Your task to perform on an android device: Show me productivity apps on the Play Store Image 0: 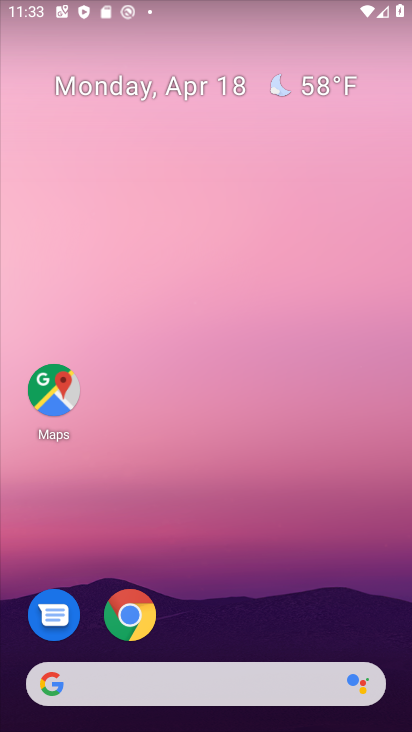
Step 0: drag from (265, 543) to (263, 71)
Your task to perform on an android device: Show me productivity apps on the Play Store Image 1: 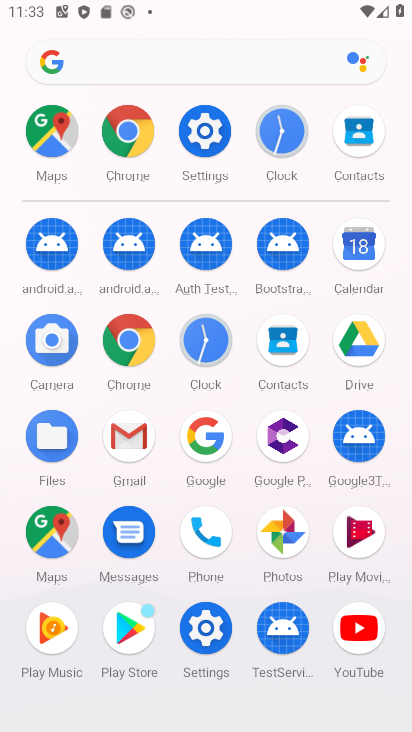
Step 1: click (124, 640)
Your task to perform on an android device: Show me productivity apps on the Play Store Image 2: 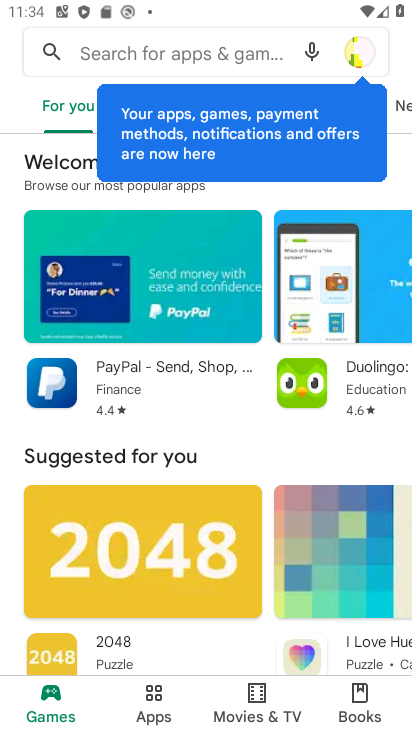
Step 2: click (152, 707)
Your task to perform on an android device: Show me productivity apps on the Play Store Image 3: 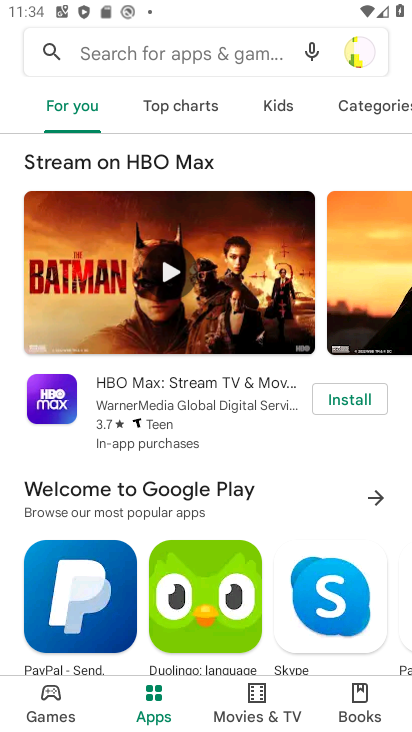
Step 3: click (363, 47)
Your task to perform on an android device: Show me productivity apps on the Play Store Image 4: 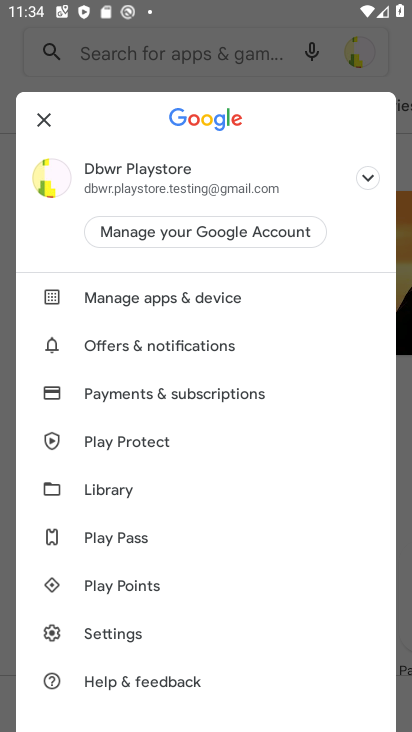
Step 4: drag from (279, 545) to (295, 361)
Your task to perform on an android device: Show me productivity apps on the Play Store Image 5: 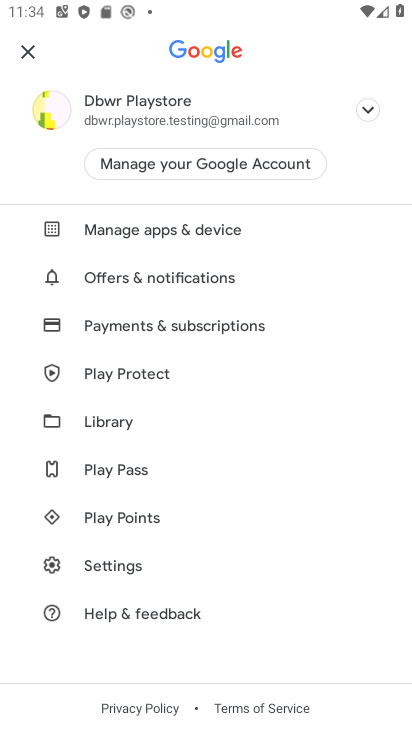
Step 5: drag from (291, 565) to (294, 356)
Your task to perform on an android device: Show me productivity apps on the Play Store Image 6: 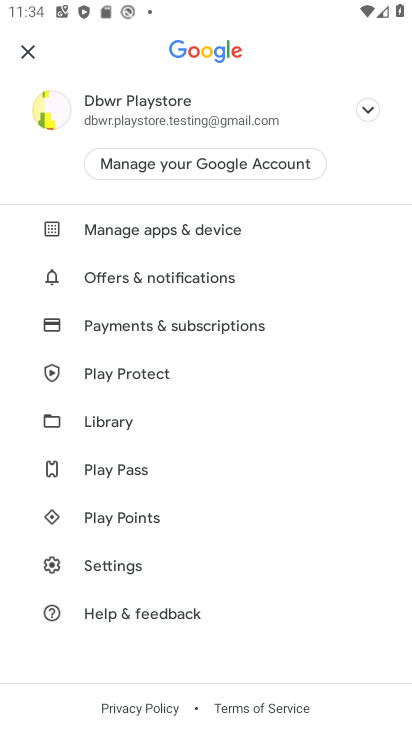
Step 6: click (21, 46)
Your task to perform on an android device: Show me productivity apps on the Play Store Image 7: 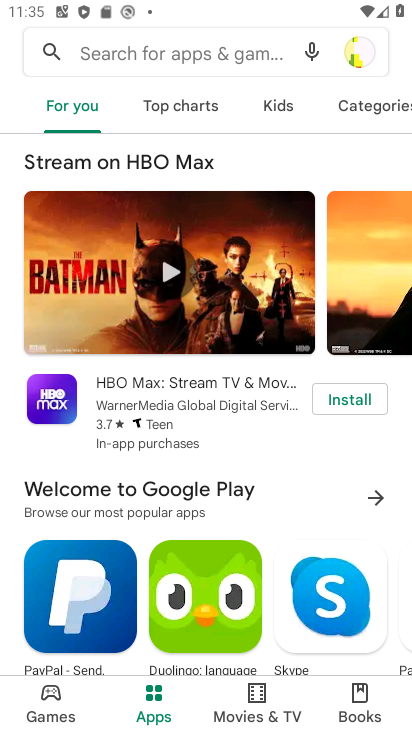
Step 7: drag from (318, 106) to (35, 106)
Your task to perform on an android device: Show me productivity apps on the Play Store Image 8: 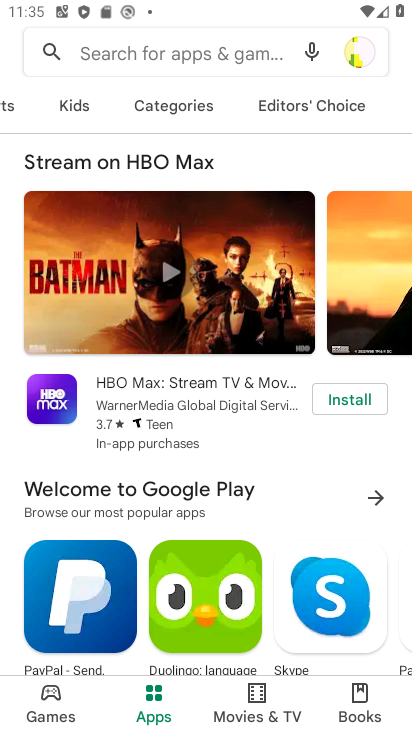
Step 8: drag from (373, 139) to (60, 135)
Your task to perform on an android device: Show me productivity apps on the Play Store Image 9: 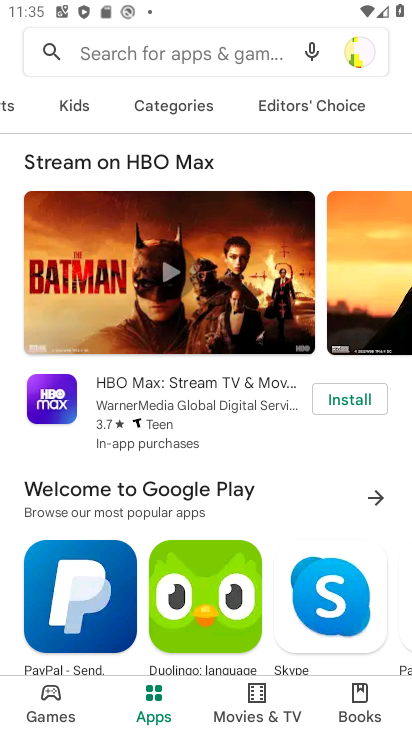
Step 9: drag from (158, 135) to (65, 135)
Your task to perform on an android device: Show me productivity apps on the Play Store Image 10: 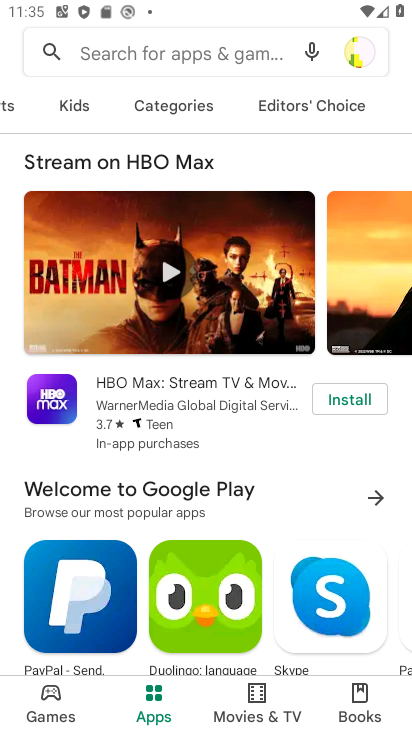
Step 10: drag from (71, 134) to (335, 130)
Your task to perform on an android device: Show me productivity apps on the Play Store Image 11: 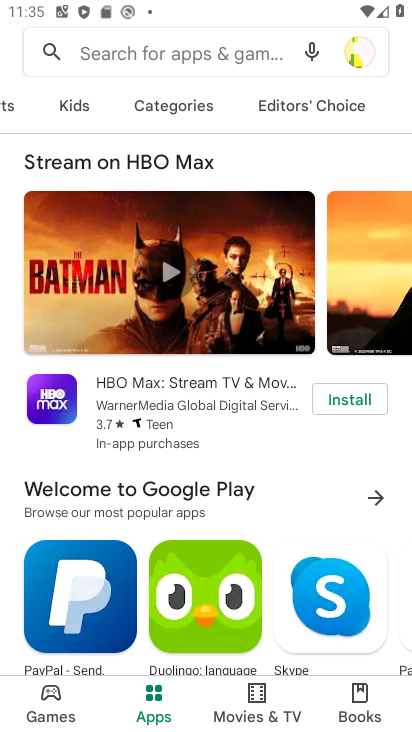
Step 11: click (337, 143)
Your task to perform on an android device: Show me productivity apps on the Play Store Image 12: 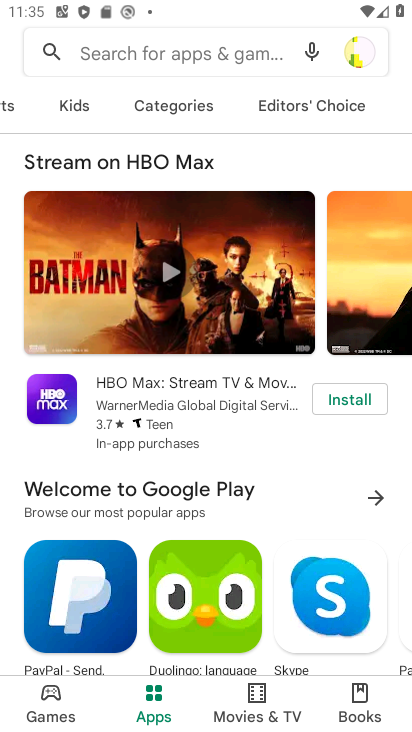
Step 12: drag from (390, 724) to (31, 724)
Your task to perform on an android device: Show me productivity apps on the Play Store Image 13: 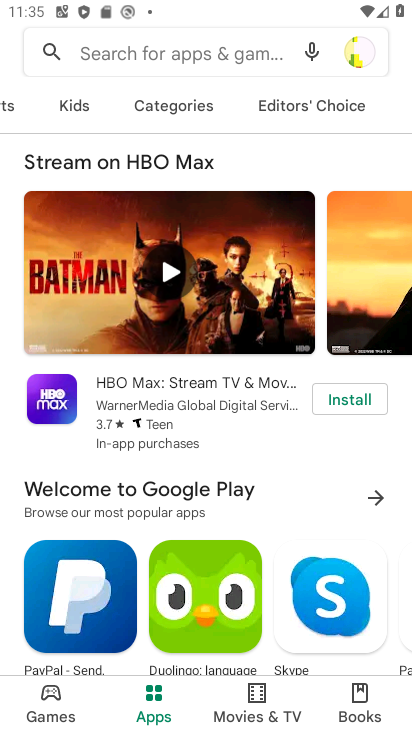
Step 13: drag from (272, 696) to (3, 703)
Your task to perform on an android device: Show me productivity apps on the Play Store Image 14: 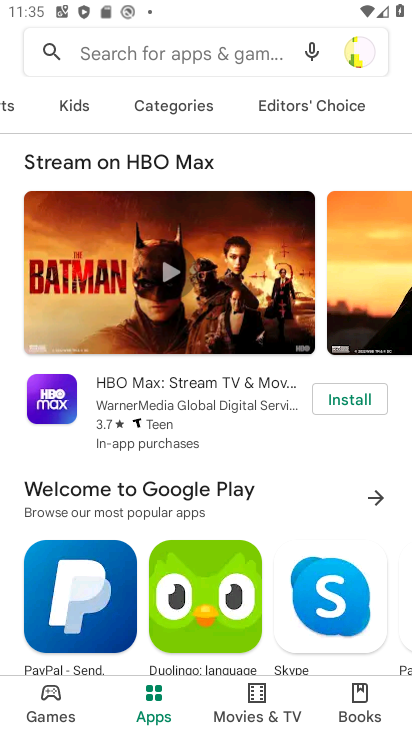
Step 14: drag from (276, 515) to (266, 248)
Your task to perform on an android device: Show me productivity apps on the Play Store Image 15: 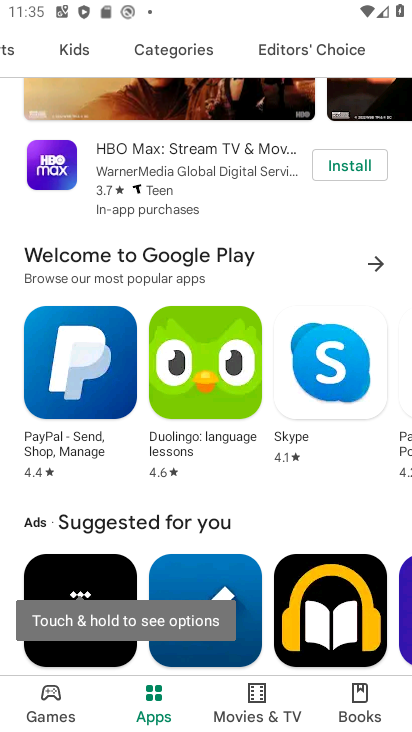
Step 15: drag from (264, 481) to (272, 217)
Your task to perform on an android device: Show me productivity apps on the Play Store Image 16: 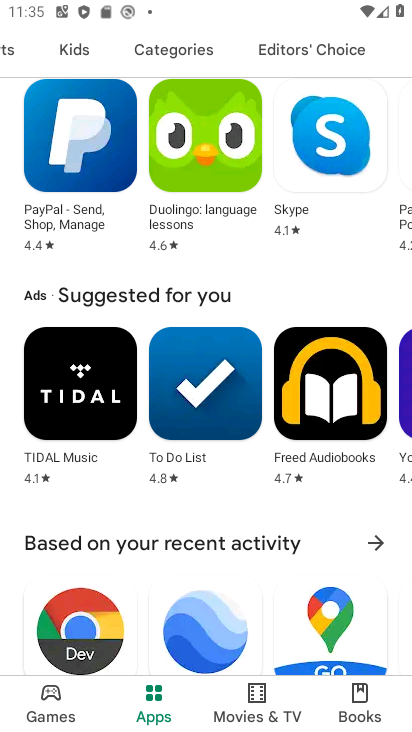
Step 16: drag from (233, 496) to (241, 236)
Your task to perform on an android device: Show me productivity apps on the Play Store Image 17: 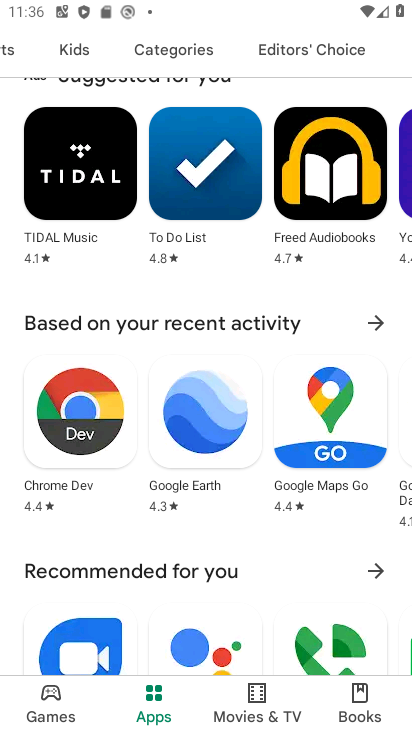
Step 17: drag from (244, 512) to (241, 224)
Your task to perform on an android device: Show me productivity apps on the Play Store Image 18: 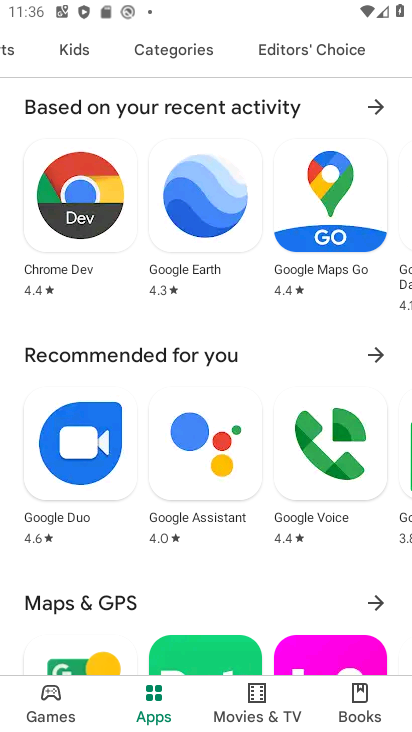
Step 18: drag from (195, 553) to (196, 232)
Your task to perform on an android device: Show me productivity apps on the Play Store Image 19: 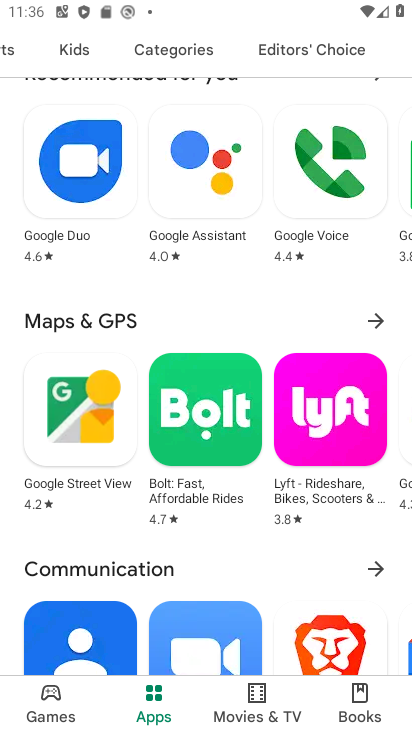
Step 19: drag from (251, 442) to (253, 210)
Your task to perform on an android device: Show me productivity apps on the Play Store Image 20: 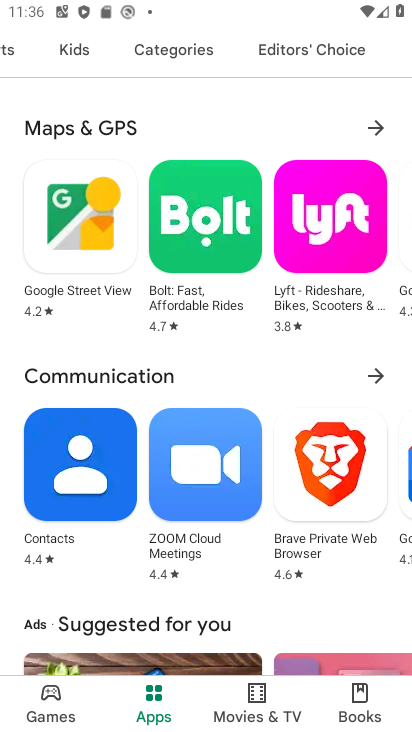
Step 20: drag from (248, 567) to (254, 219)
Your task to perform on an android device: Show me productivity apps on the Play Store Image 21: 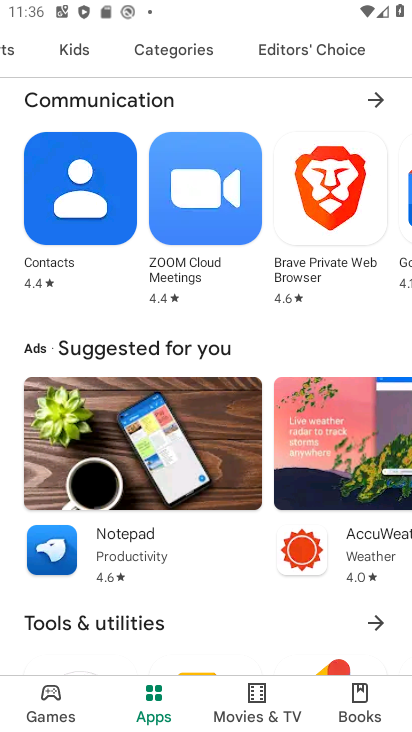
Step 21: drag from (260, 490) to (259, 249)
Your task to perform on an android device: Show me productivity apps on the Play Store Image 22: 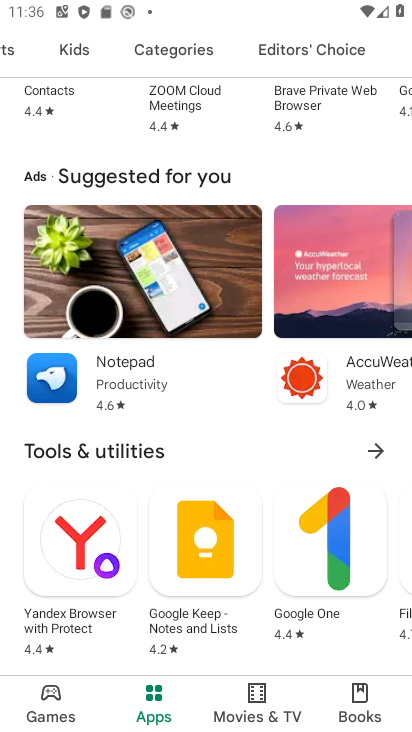
Step 22: drag from (250, 586) to (261, 286)
Your task to perform on an android device: Show me productivity apps on the Play Store Image 23: 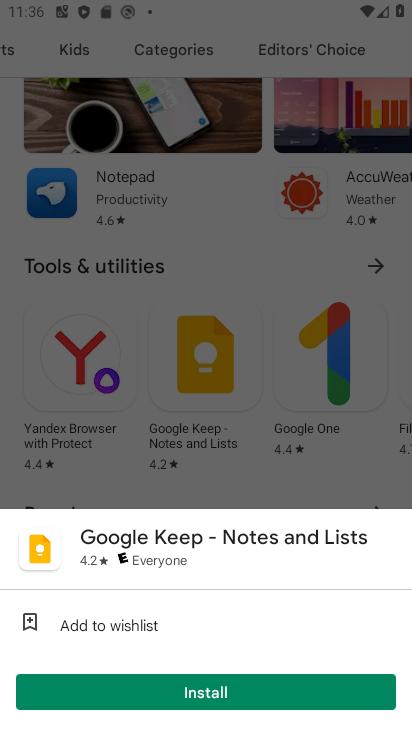
Step 23: drag from (252, 351) to (252, 214)
Your task to perform on an android device: Show me productivity apps on the Play Store Image 24: 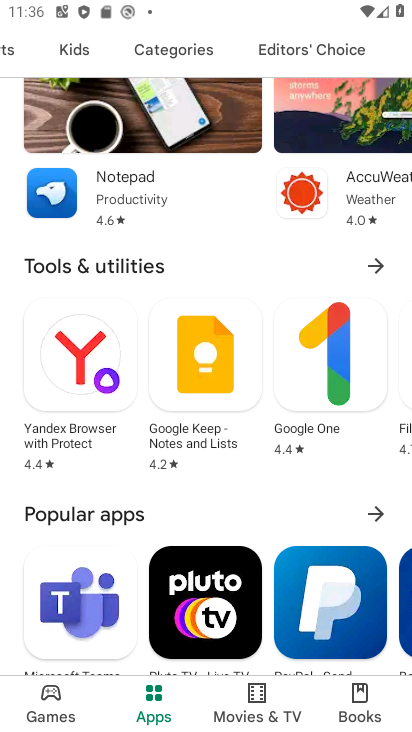
Step 24: click (245, 477)
Your task to perform on an android device: Show me productivity apps on the Play Store Image 25: 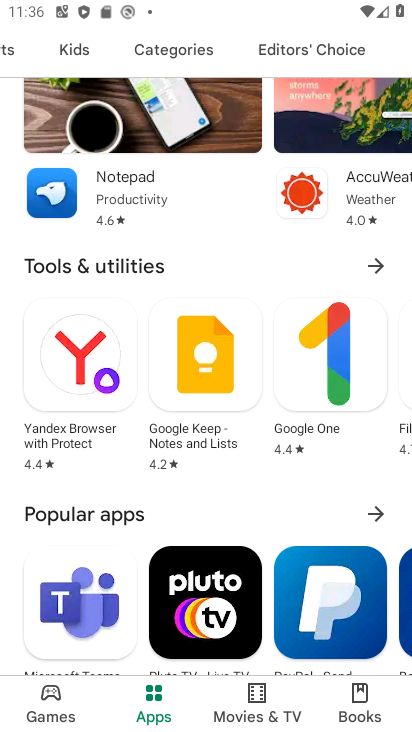
Step 25: drag from (247, 457) to (247, 204)
Your task to perform on an android device: Show me productivity apps on the Play Store Image 26: 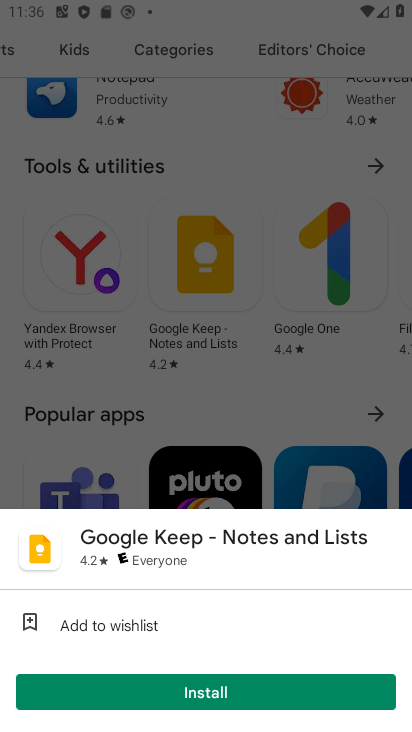
Step 26: click (230, 409)
Your task to perform on an android device: Show me productivity apps on the Play Store Image 27: 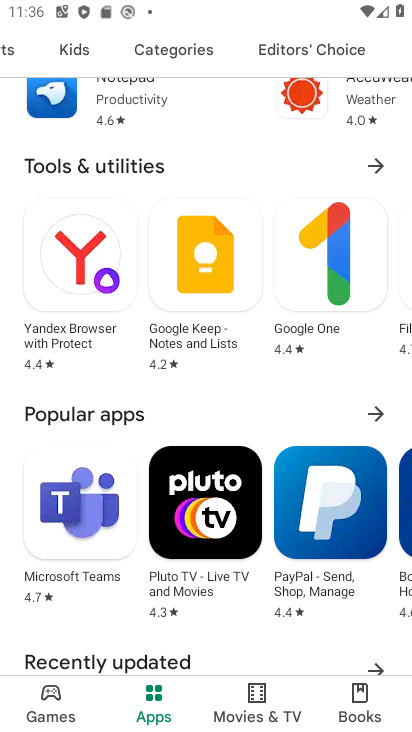
Step 27: task complete